Your task to perform on an android device: Is it going to rain this weekend? Image 0: 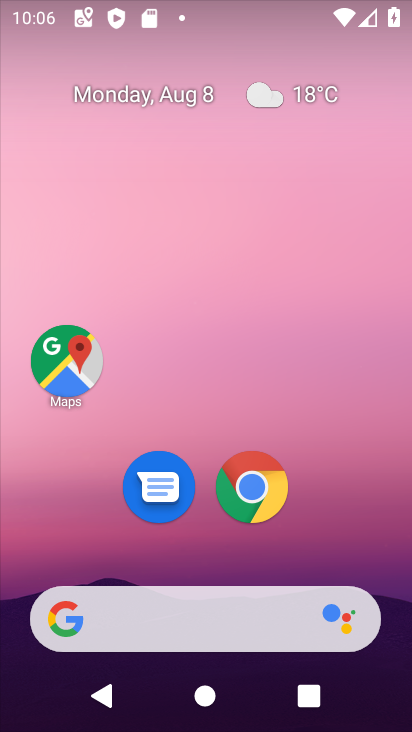
Step 0: drag from (206, 559) to (183, 80)
Your task to perform on an android device: Is it going to rain this weekend? Image 1: 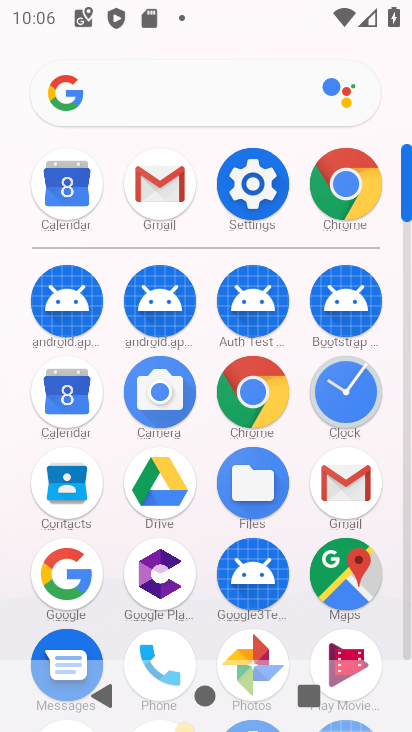
Step 1: click (64, 570)
Your task to perform on an android device: Is it going to rain this weekend? Image 2: 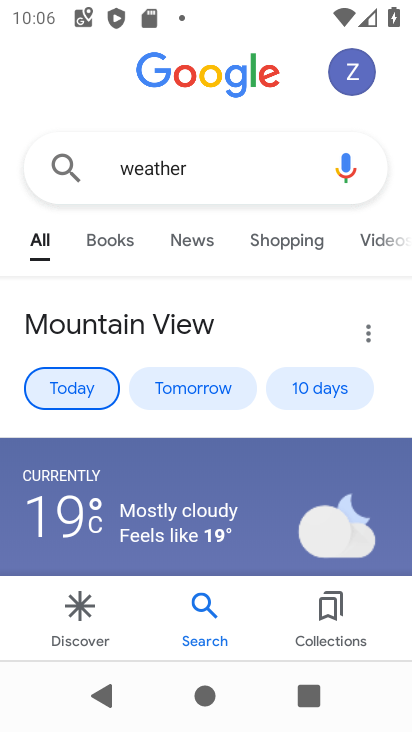
Step 2: click (305, 382)
Your task to perform on an android device: Is it going to rain this weekend? Image 3: 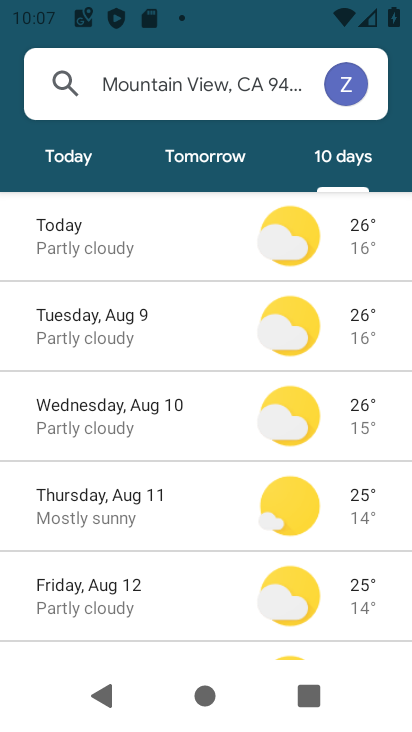
Step 3: task complete